Your task to perform on an android device: Open Chrome and go to settings Image 0: 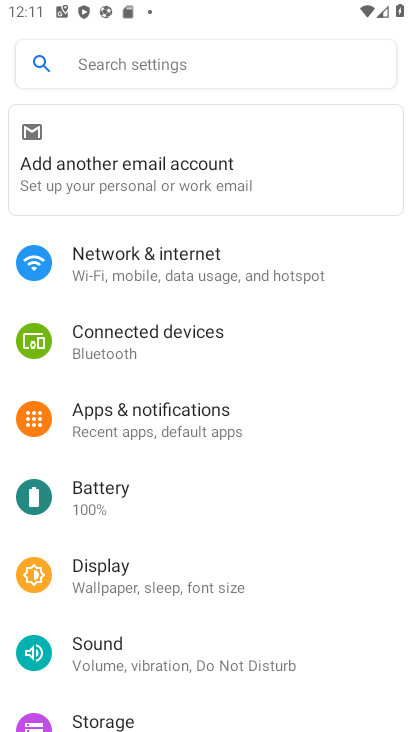
Step 0: press home button
Your task to perform on an android device: Open Chrome and go to settings Image 1: 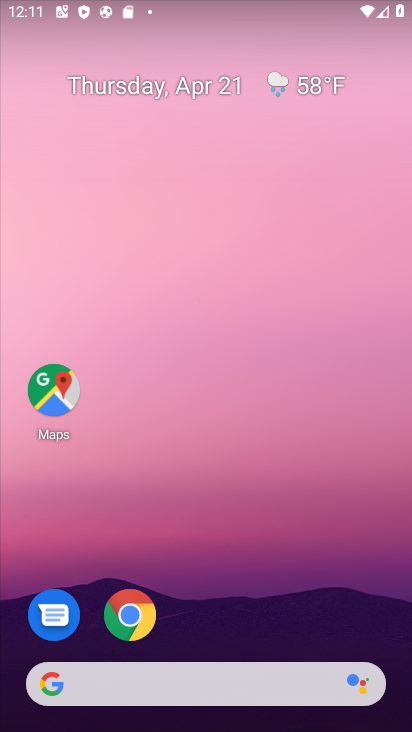
Step 1: drag from (385, 636) to (408, 136)
Your task to perform on an android device: Open Chrome and go to settings Image 2: 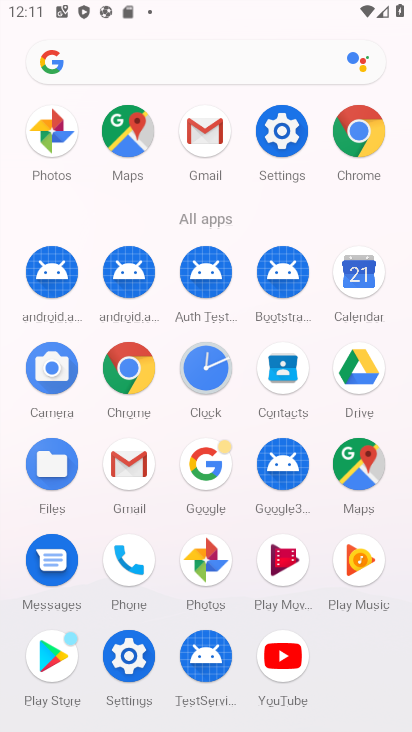
Step 2: click (138, 381)
Your task to perform on an android device: Open Chrome and go to settings Image 3: 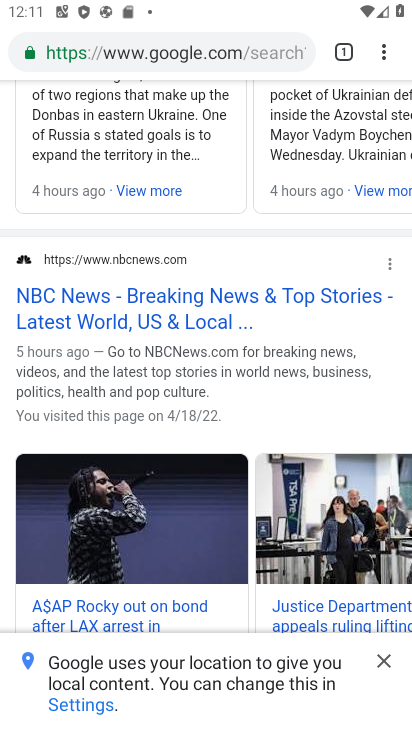
Step 3: drag from (219, 226) to (222, 583)
Your task to perform on an android device: Open Chrome and go to settings Image 4: 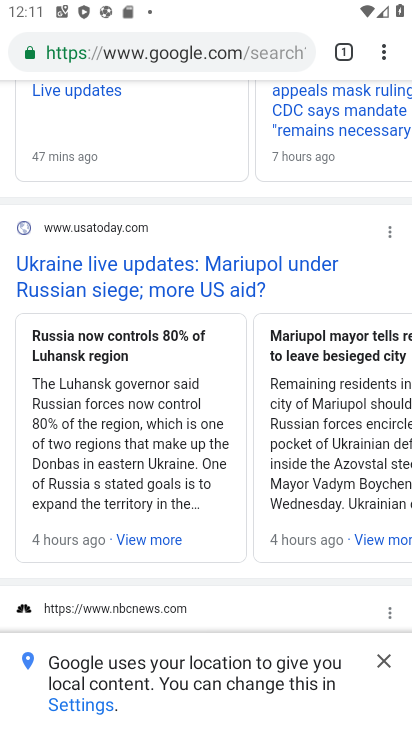
Step 4: drag from (233, 158) to (241, 615)
Your task to perform on an android device: Open Chrome and go to settings Image 5: 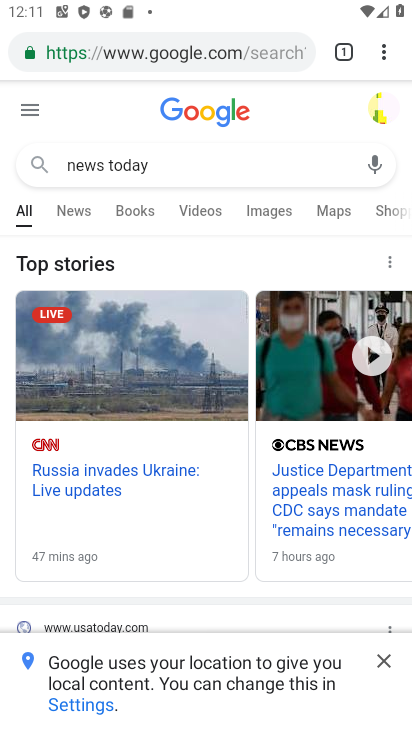
Step 5: click (234, 55)
Your task to perform on an android device: Open Chrome and go to settings Image 6: 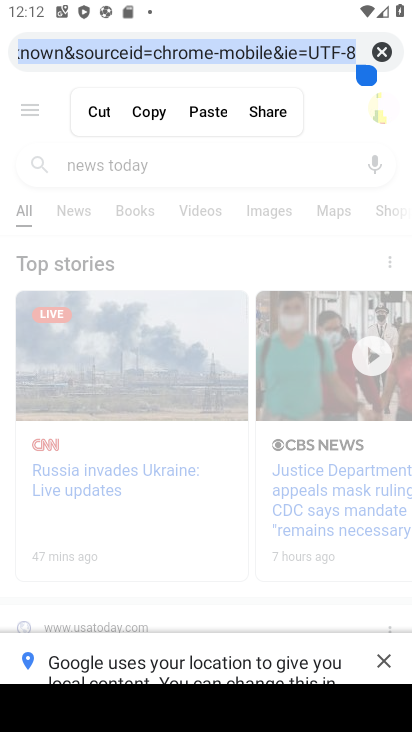
Step 6: click (242, 173)
Your task to perform on an android device: Open Chrome and go to settings Image 7: 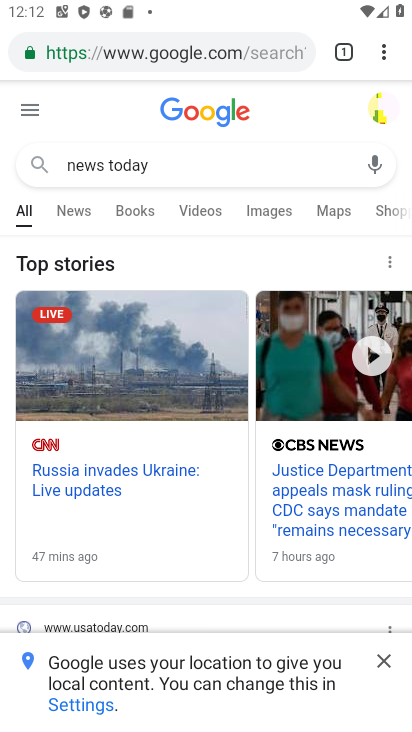
Step 7: task complete